Your task to perform on an android device: Go to ESPN.com Image 0: 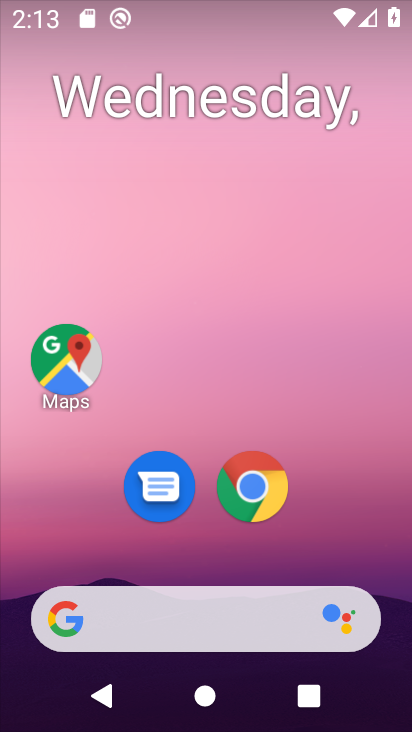
Step 0: click (268, 500)
Your task to perform on an android device: Go to ESPN.com Image 1: 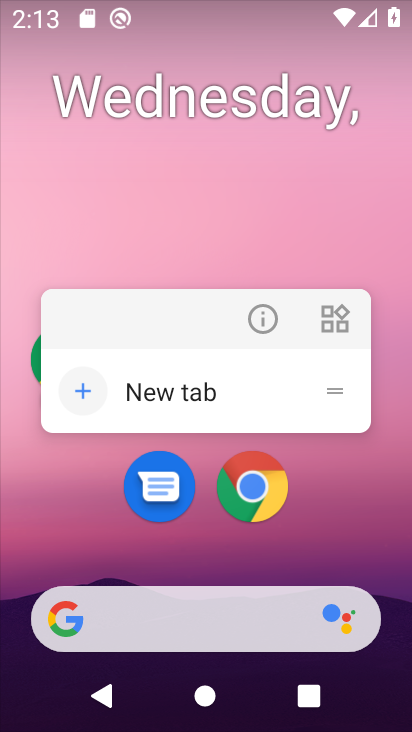
Step 1: click (257, 502)
Your task to perform on an android device: Go to ESPN.com Image 2: 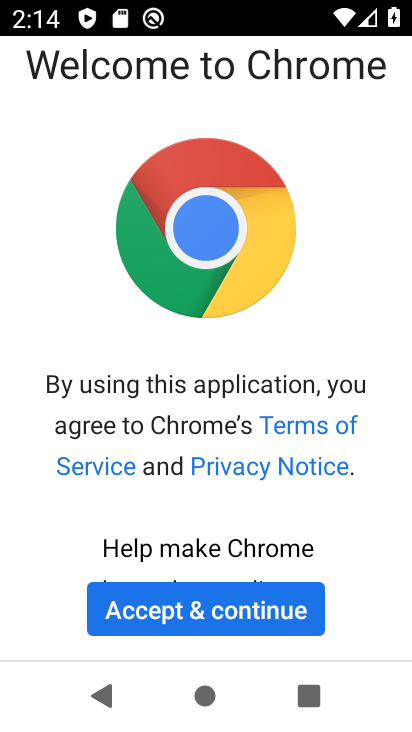
Step 2: click (212, 621)
Your task to perform on an android device: Go to ESPN.com Image 3: 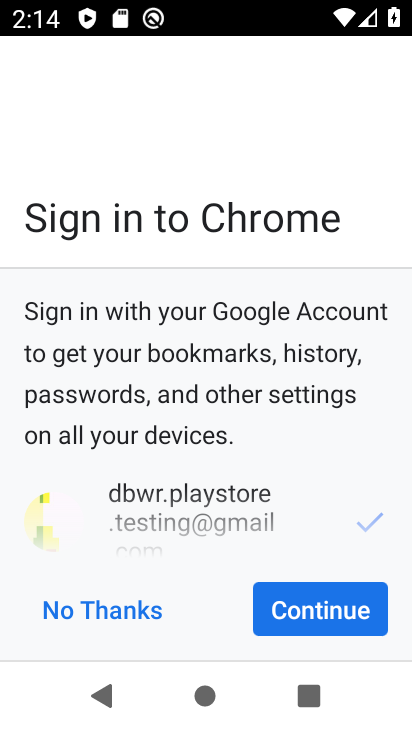
Step 3: click (289, 617)
Your task to perform on an android device: Go to ESPN.com Image 4: 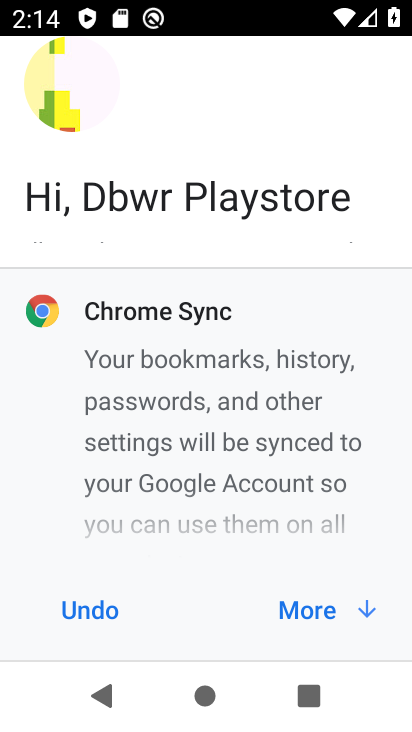
Step 4: click (315, 614)
Your task to perform on an android device: Go to ESPN.com Image 5: 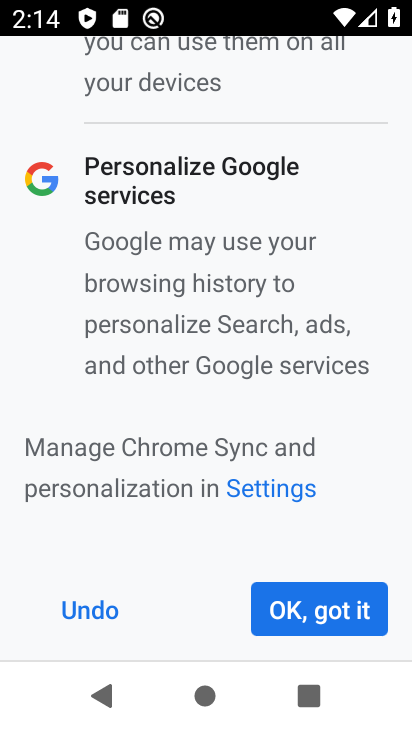
Step 5: click (309, 618)
Your task to perform on an android device: Go to ESPN.com Image 6: 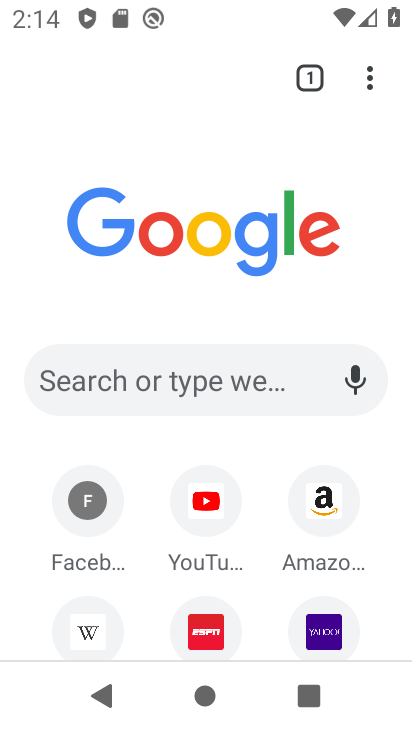
Step 6: click (168, 368)
Your task to perform on an android device: Go to ESPN.com Image 7: 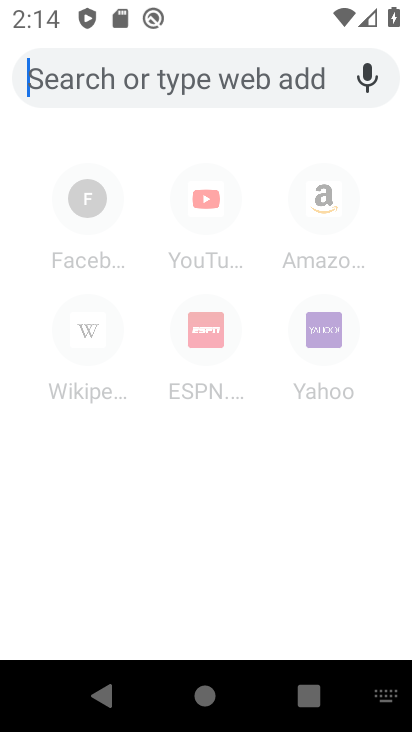
Step 7: type "ESPN.com"
Your task to perform on an android device: Go to ESPN.com Image 8: 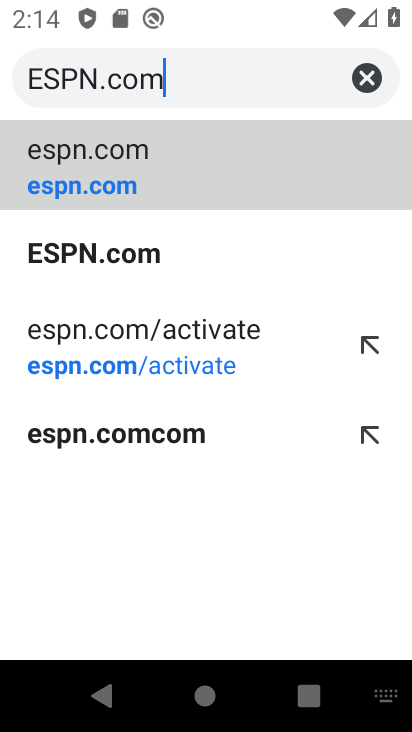
Step 8: click (110, 192)
Your task to perform on an android device: Go to ESPN.com Image 9: 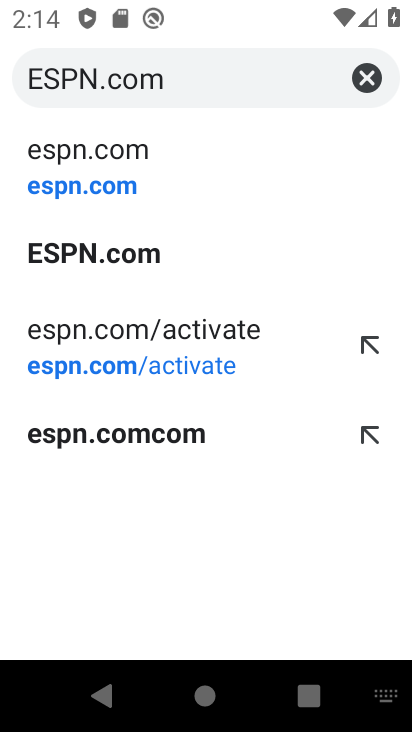
Step 9: click (86, 185)
Your task to perform on an android device: Go to ESPN.com Image 10: 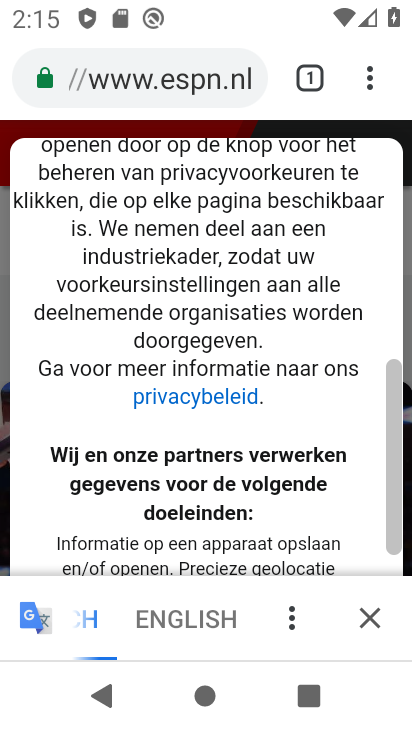
Step 10: task complete